Your task to perform on an android device: set the stopwatch Image 0: 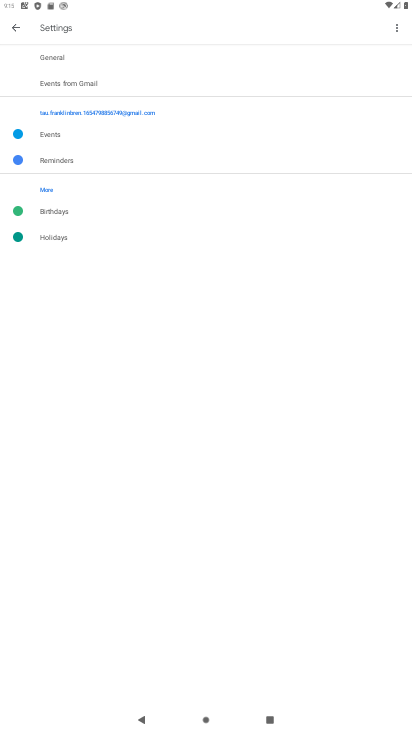
Step 0: press home button
Your task to perform on an android device: set the stopwatch Image 1: 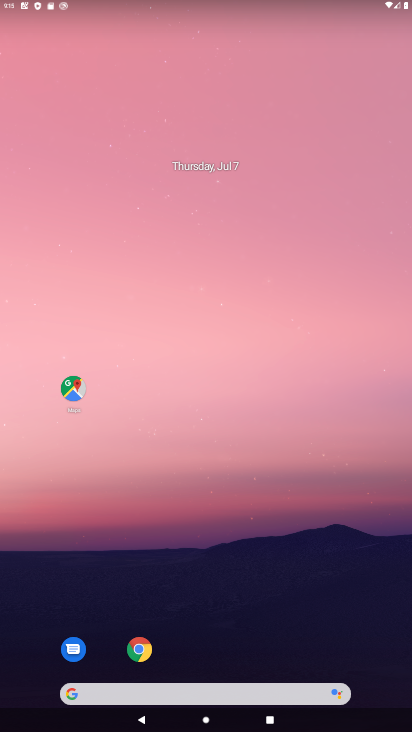
Step 1: drag from (257, 478) to (228, 56)
Your task to perform on an android device: set the stopwatch Image 2: 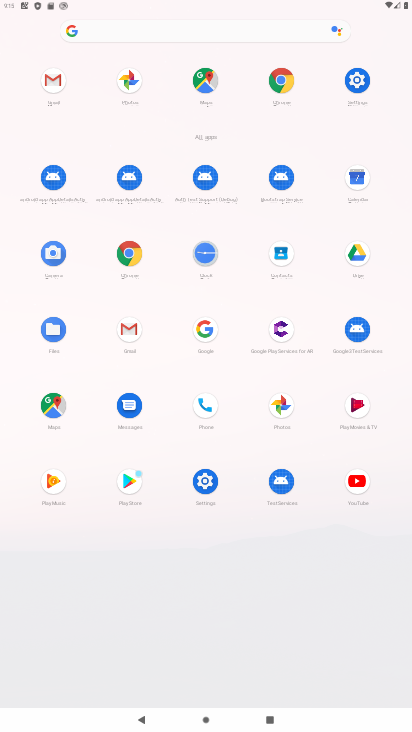
Step 2: click (211, 256)
Your task to perform on an android device: set the stopwatch Image 3: 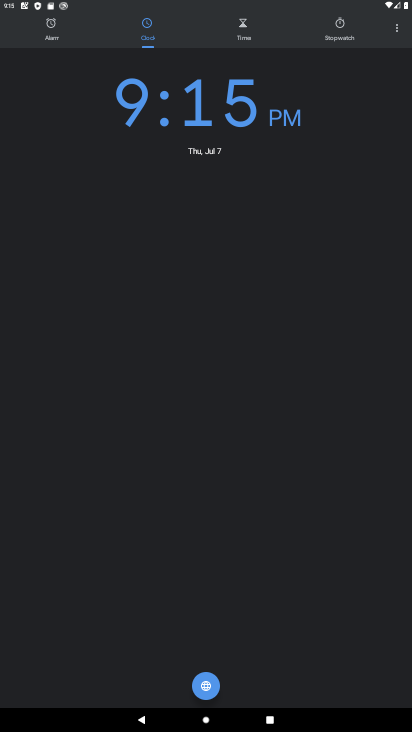
Step 3: click (342, 28)
Your task to perform on an android device: set the stopwatch Image 4: 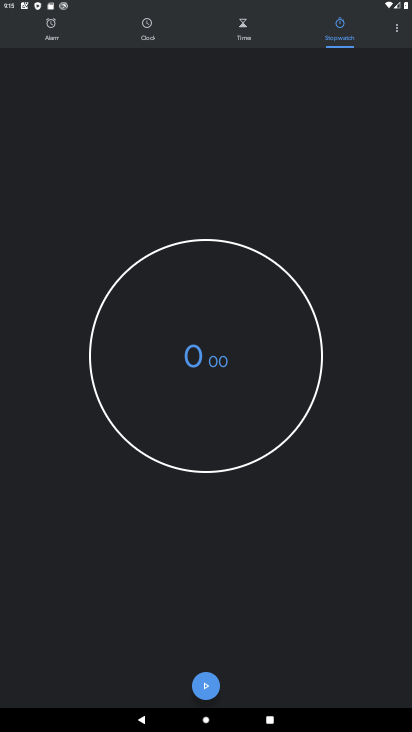
Step 4: task complete